Your task to perform on an android device: Open calendar and show me the fourth week of next month Image 0: 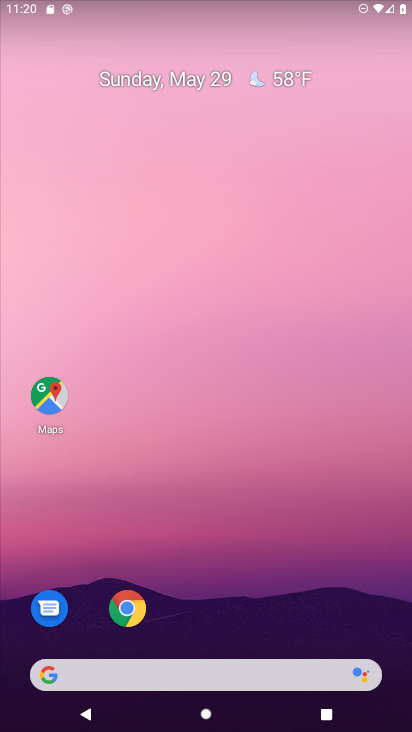
Step 0: drag from (176, 644) to (192, 305)
Your task to perform on an android device: Open calendar and show me the fourth week of next month Image 1: 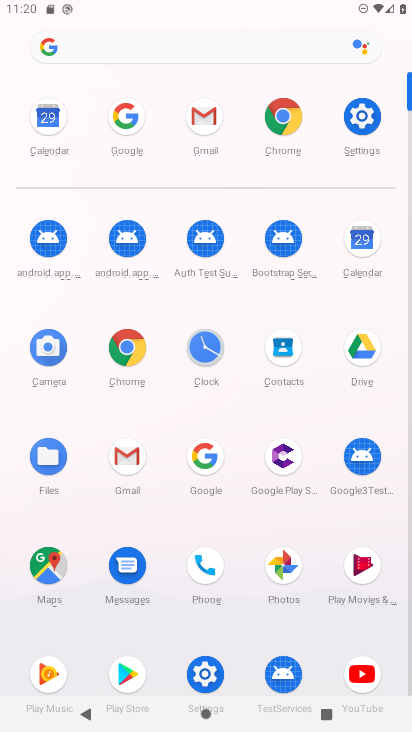
Step 1: click (37, 129)
Your task to perform on an android device: Open calendar and show me the fourth week of next month Image 2: 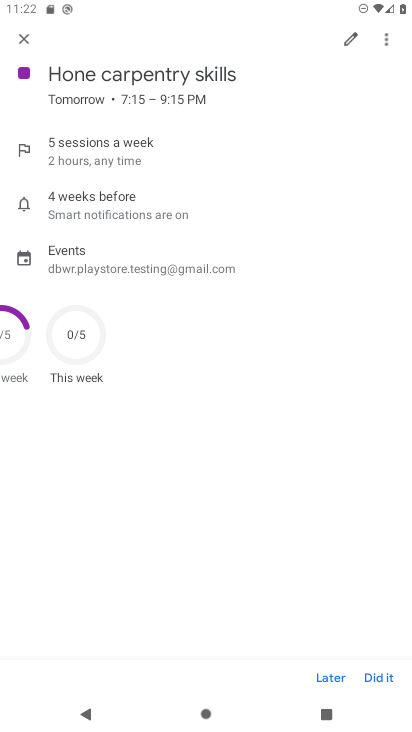
Step 2: click (21, 40)
Your task to perform on an android device: Open calendar and show me the fourth week of next month Image 3: 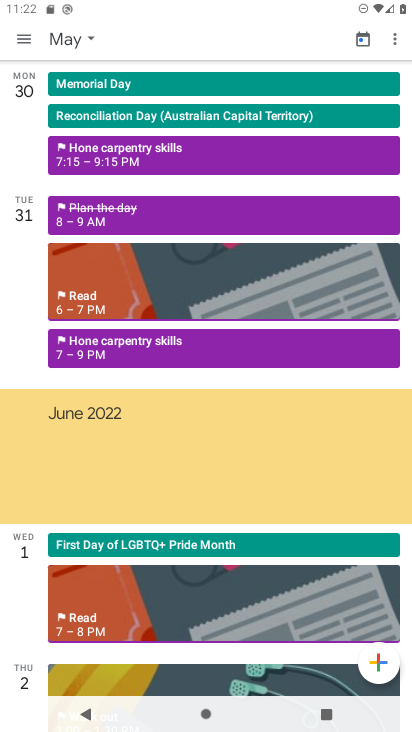
Step 3: click (57, 30)
Your task to perform on an android device: Open calendar and show me the fourth week of next month Image 4: 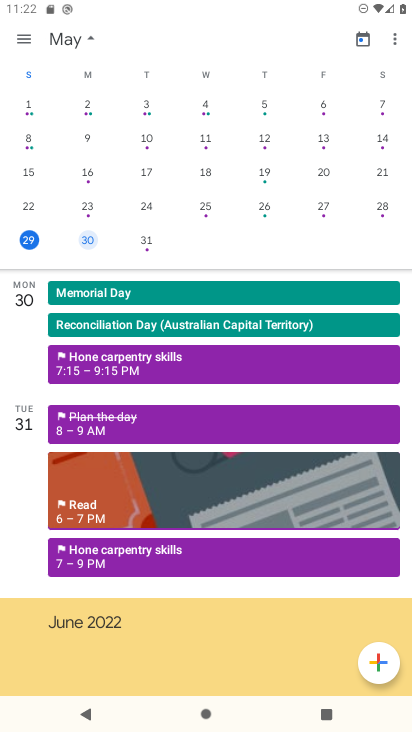
Step 4: drag from (336, 194) to (11, 220)
Your task to perform on an android device: Open calendar and show me the fourth week of next month Image 5: 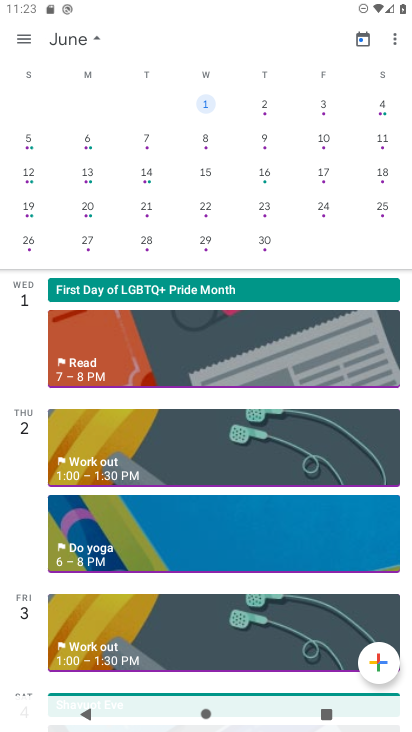
Step 5: click (30, 201)
Your task to perform on an android device: Open calendar and show me the fourth week of next month Image 6: 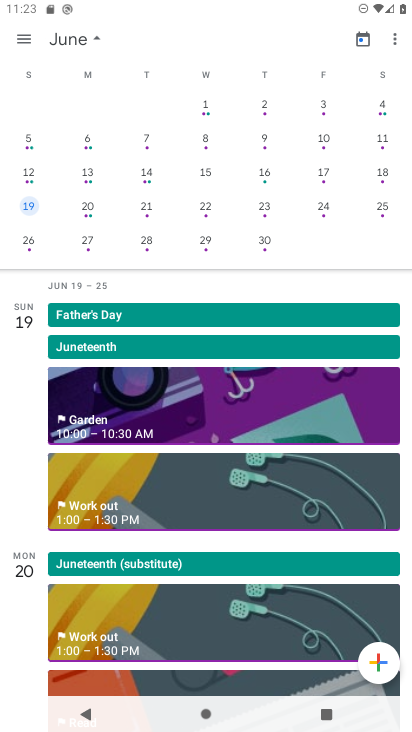
Step 6: task complete